Your task to perform on an android device: install app "Google Docs" Image 0: 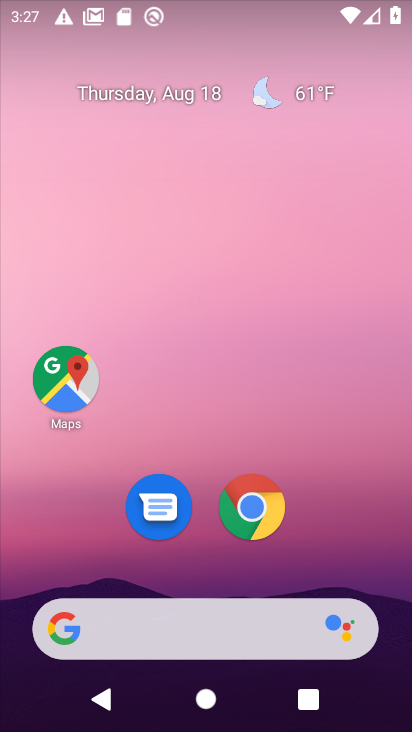
Step 0: drag from (159, 503) to (243, 123)
Your task to perform on an android device: install app "Google Docs" Image 1: 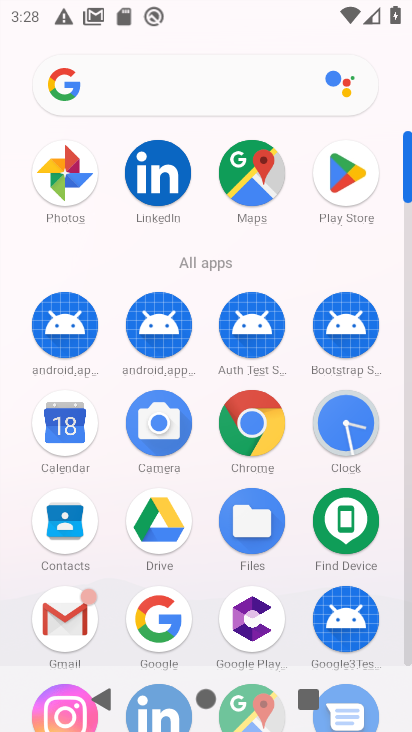
Step 1: click (348, 183)
Your task to perform on an android device: install app "Google Docs" Image 2: 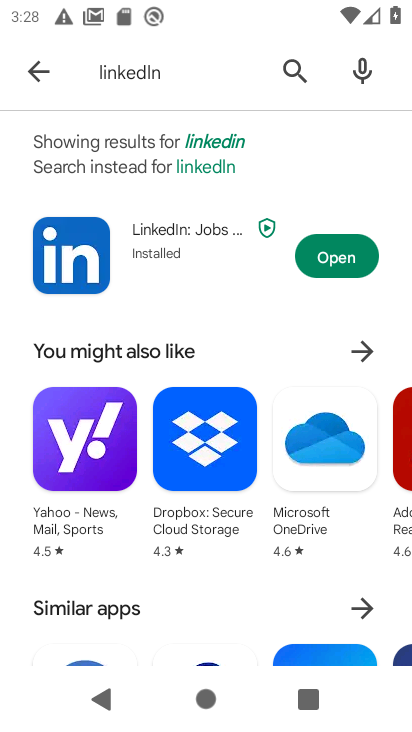
Step 2: click (292, 57)
Your task to perform on an android device: install app "Google Docs" Image 3: 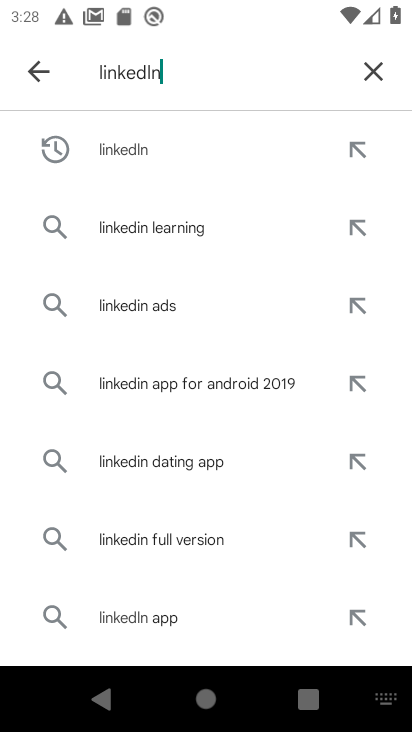
Step 3: click (390, 62)
Your task to perform on an android device: install app "Google Docs" Image 4: 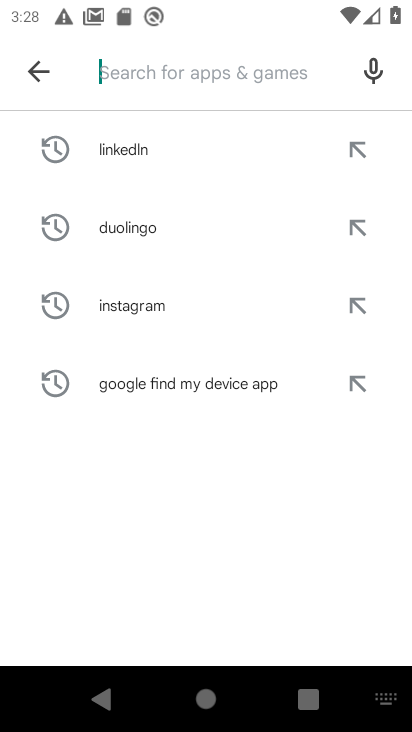
Step 4: click (169, 82)
Your task to perform on an android device: install app "Google Docs" Image 5: 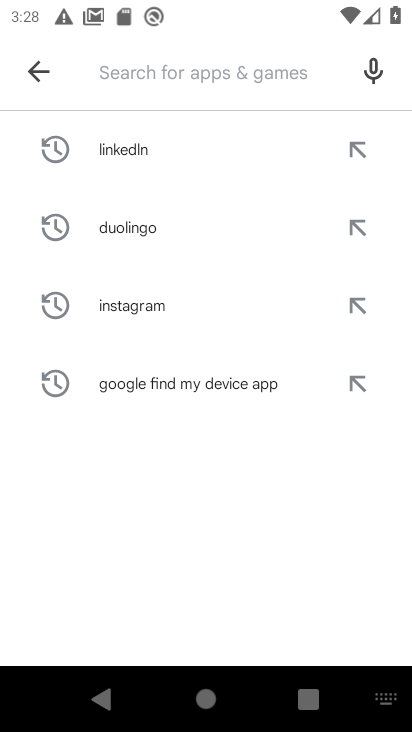
Step 5: type "Google Docs"
Your task to perform on an android device: install app "Google Docs" Image 6: 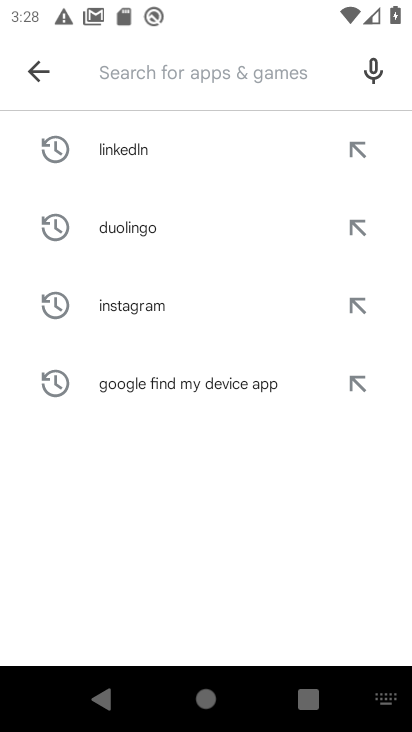
Step 6: click (275, 491)
Your task to perform on an android device: install app "Google Docs" Image 7: 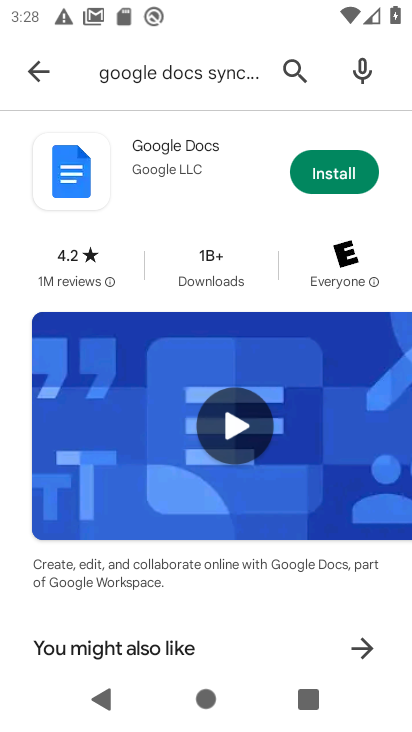
Step 7: click (334, 166)
Your task to perform on an android device: install app "Google Docs" Image 8: 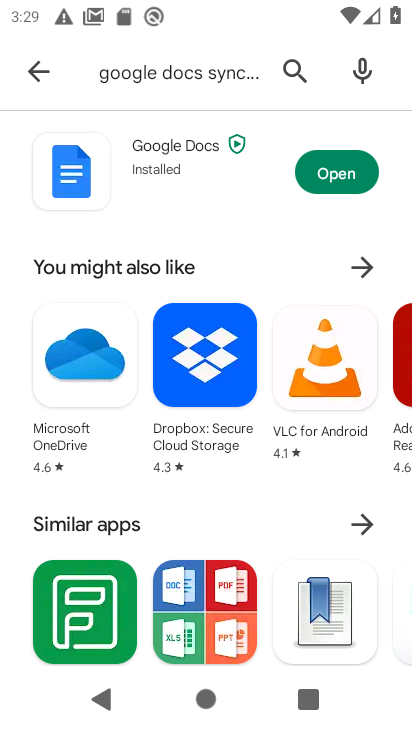
Step 8: task complete